Your task to perform on an android device: Go to Android settings Image 0: 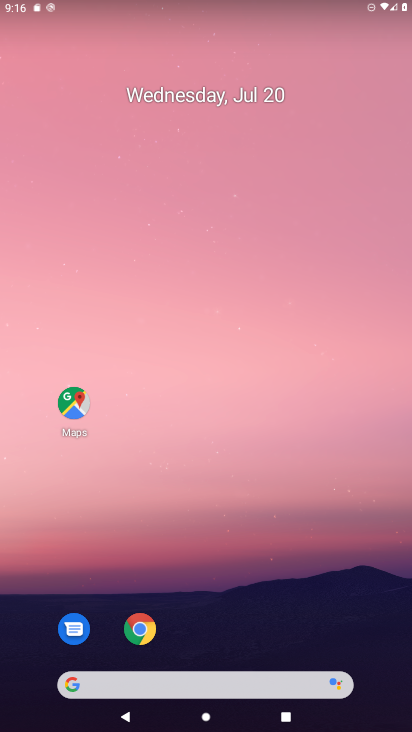
Step 0: drag from (383, 654) to (350, 86)
Your task to perform on an android device: Go to Android settings Image 1: 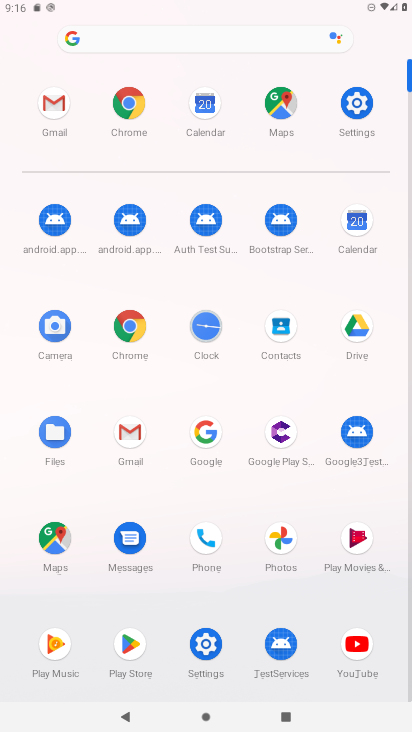
Step 1: click (205, 644)
Your task to perform on an android device: Go to Android settings Image 2: 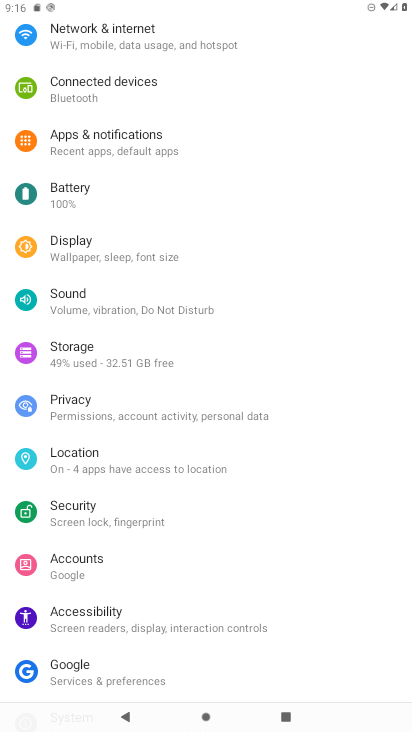
Step 2: drag from (282, 648) to (264, 168)
Your task to perform on an android device: Go to Android settings Image 3: 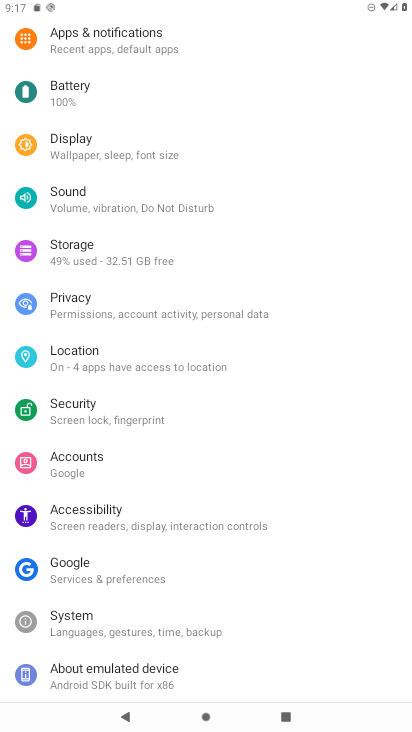
Step 3: click (78, 676)
Your task to perform on an android device: Go to Android settings Image 4: 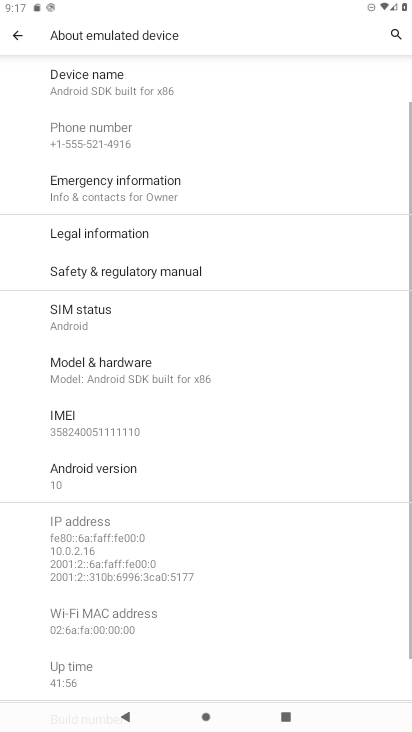
Step 4: task complete